Your task to perform on an android device: open app "Expedia: Hotels, Flights & Car" (install if not already installed) Image 0: 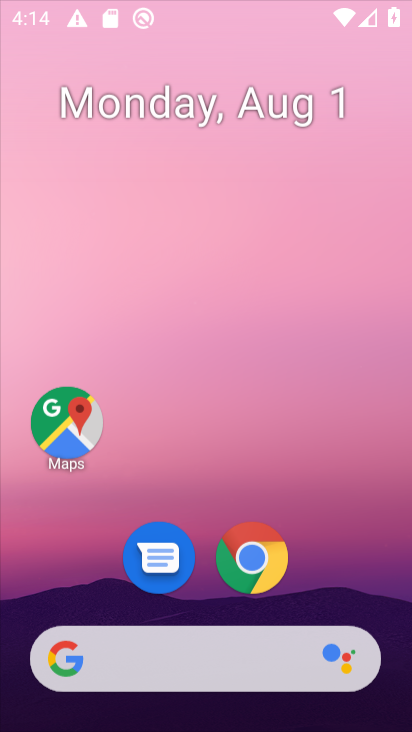
Step 0: drag from (212, 563) to (159, 108)
Your task to perform on an android device: open app "Expedia: Hotels, Flights & Car" (install if not already installed) Image 1: 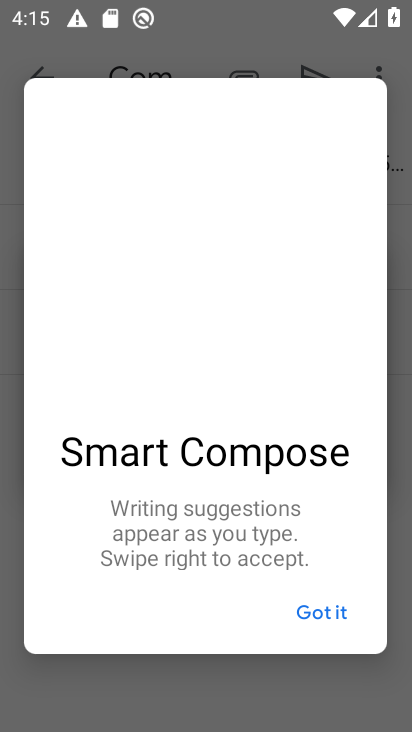
Step 1: press home button
Your task to perform on an android device: open app "Expedia: Hotels, Flights & Car" (install if not already installed) Image 2: 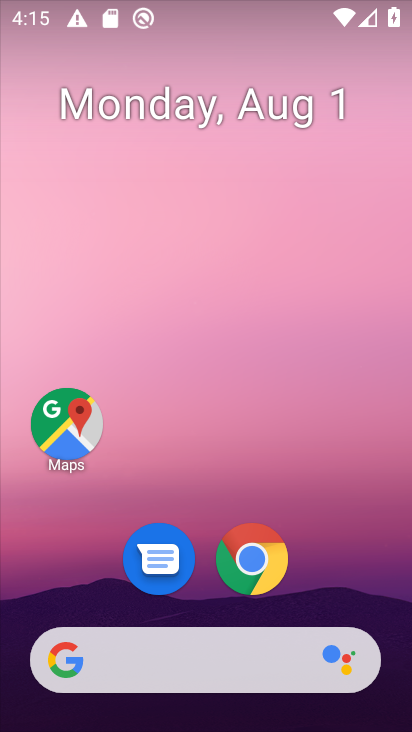
Step 2: drag from (207, 526) to (161, 69)
Your task to perform on an android device: open app "Expedia: Hotels, Flights & Car" (install if not already installed) Image 3: 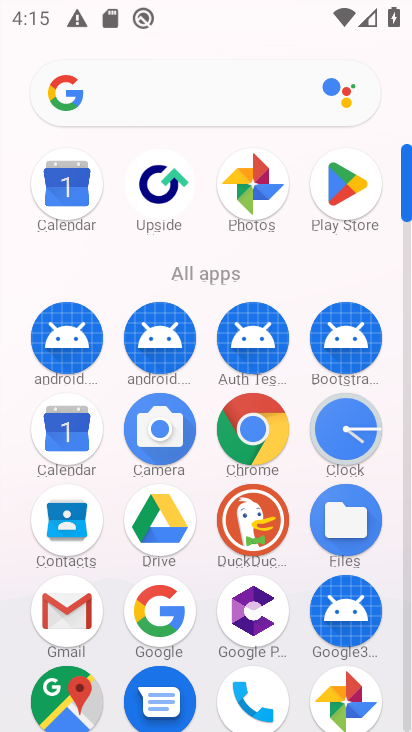
Step 3: click (357, 192)
Your task to perform on an android device: open app "Expedia: Hotels, Flights & Car" (install if not already installed) Image 4: 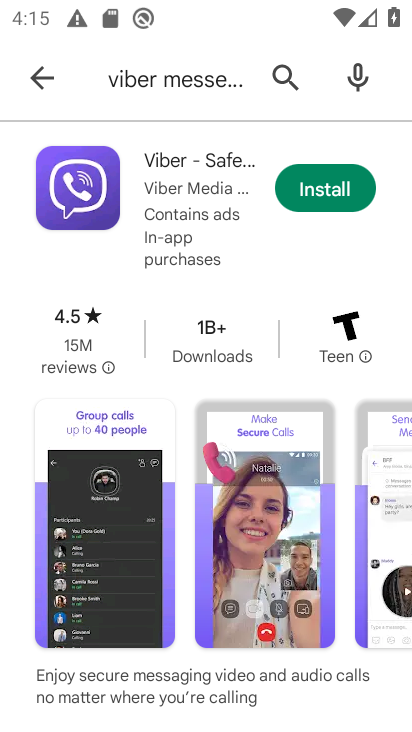
Step 4: click (161, 77)
Your task to perform on an android device: open app "Expedia: Hotels, Flights & Car" (install if not already installed) Image 5: 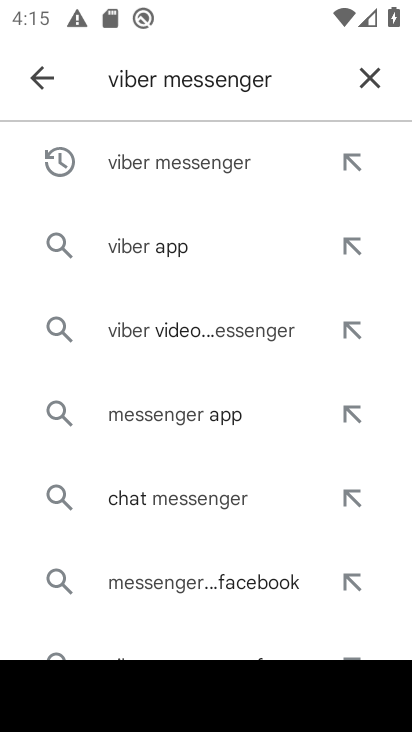
Step 5: click (370, 84)
Your task to perform on an android device: open app "Expedia: Hotels, Flights & Car" (install if not already installed) Image 6: 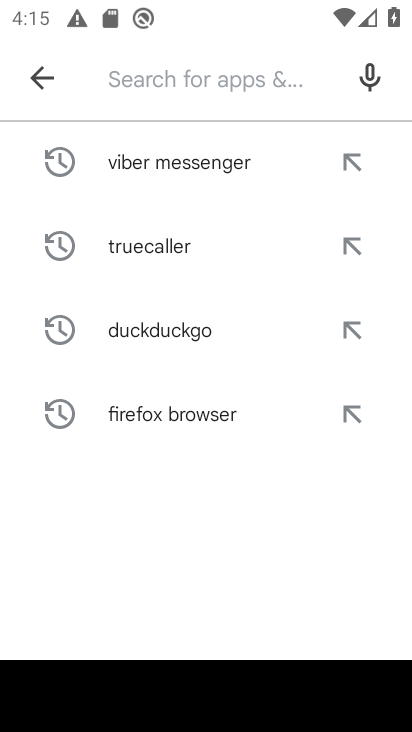
Step 6: type "expedia"
Your task to perform on an android device: open app "Expedia: Hotels, Flights & Car" (install if not already installed) Image 7: 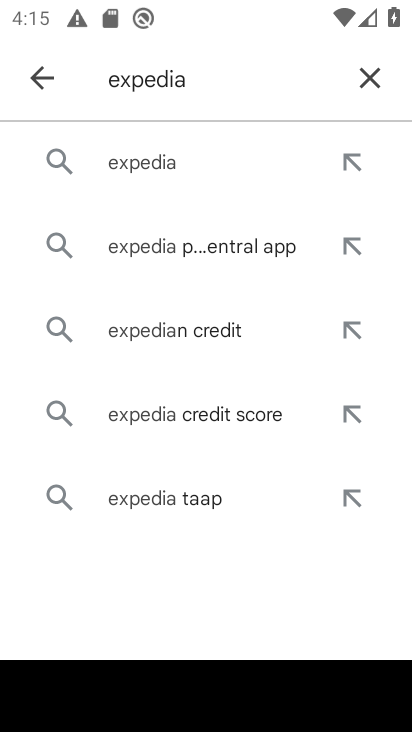
Step 7: click (139, 177)
Your task to perform on an android device: open app "Expedia: Hotels, Flights & Car" (install if not already installed) Image 8: 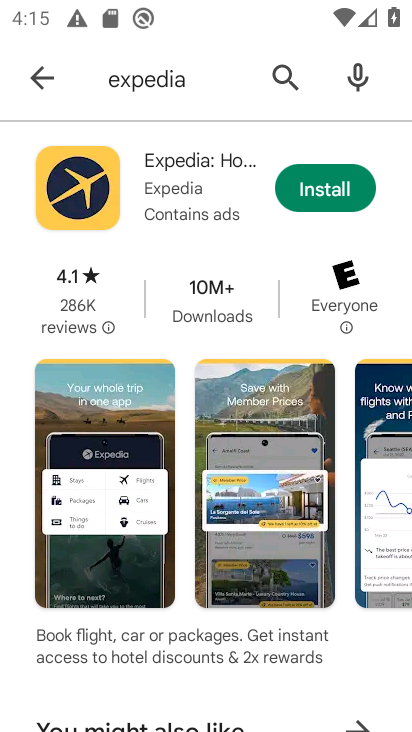
Step 8: click (336, 186)
Your task to perform on an android device: open app "Expedia: Hotels, Flights & Car" (install if not already installed) Image 9: 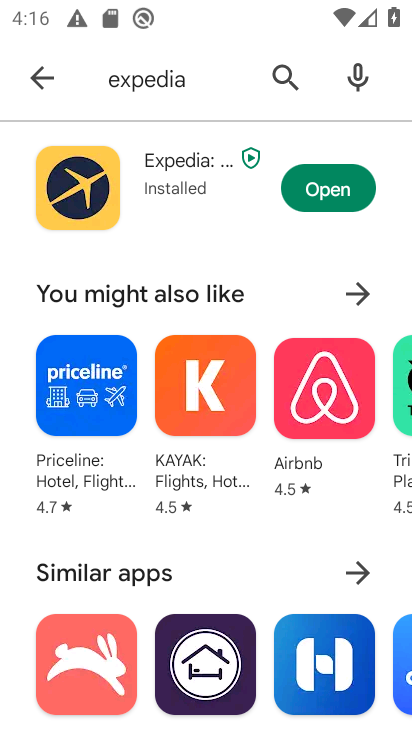
Step 9: click (296, 174)
Your task to perform on an android device: open app "Expedia: Hotels, Flights & Car" (install if not already installed) Image 10: 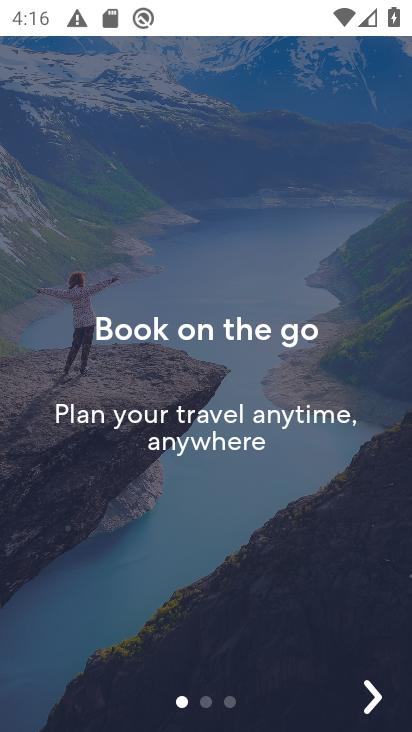
Step 10: click (369, 685)
Your task to perform on an android device: open app "Expedia: Hotels, Flights & Car" (install if not already installed) Image 11: 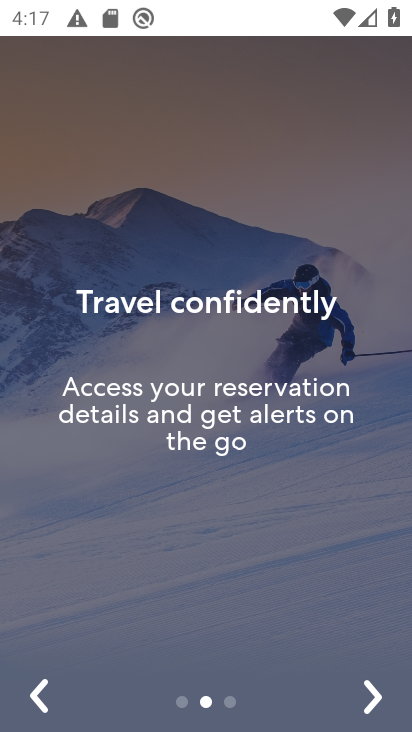
Step 11: click (365, 699)
Your task to perform on an android device: open app "Expedia: Hotels, Flights & Car" (install if not already installed) Image 12: 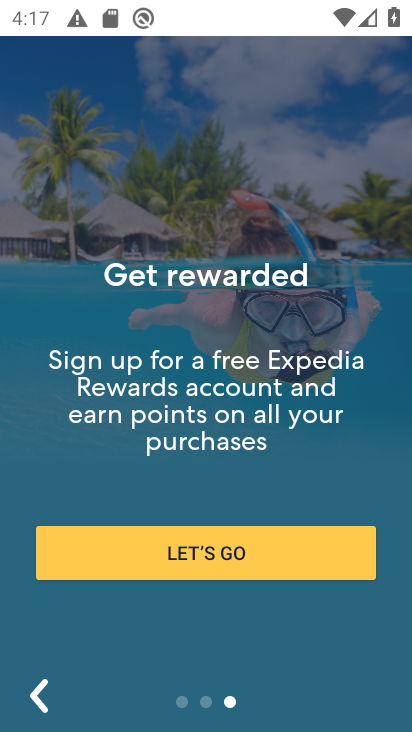
Step 12: click (298, 564)
Your task to perform on an android device: open app "Expedia: Hotels, Flights & Car" (install if not already installed) Image 13: 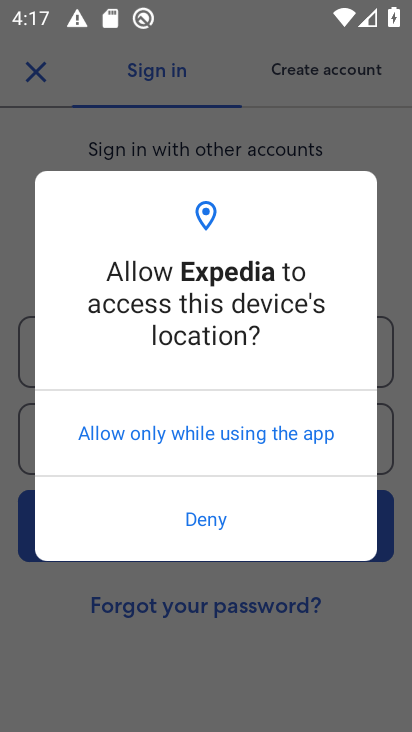
Step 13: click (278, 472)
Your task to perform on an android device: open app "Expedia: Hotels, Flights & Car" (install if not already installed) Image 14: 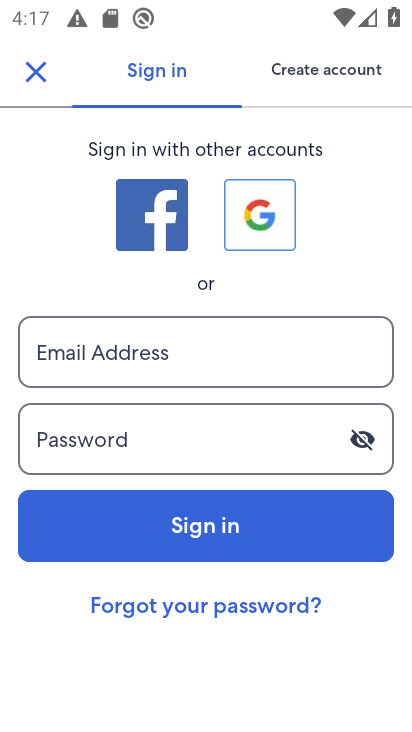
Step 14: task complete